Your task to perform on an android device: Clear the cart on costco.com. Add "apple airpods" to the cart on costco.com Image 0: 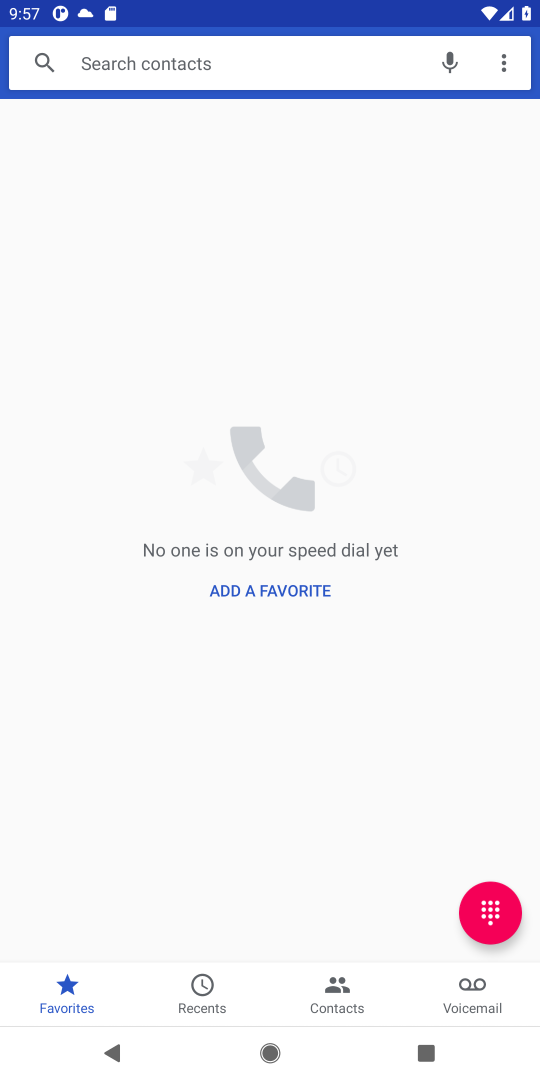
Step 0: press home button
Your task to perform on an android device: Clear the cart on costco.com. Add "apple airpods" to the cart on costco.com Image 1: 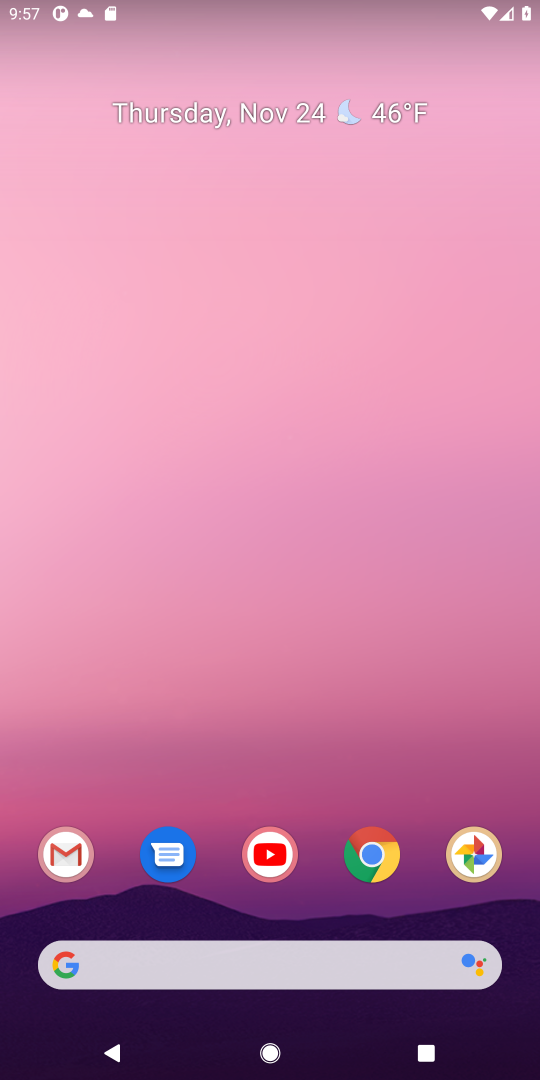
Step 1: click (378, 860)
Your task to perform on an android device: Clear the cart on costco.com. Add "apple airpods" to the cart on costco.com Image 2: 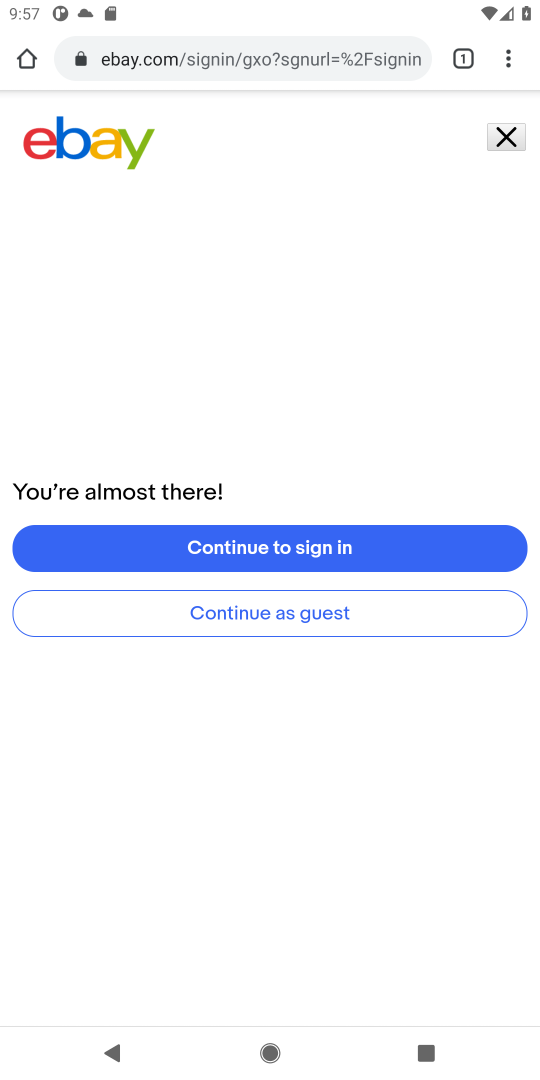
Step 2: click (196, 60)
Your task to perform on an android device: Clear the cart on costco.com. Add "apple airpods" to the cart on costco.com Image 3: 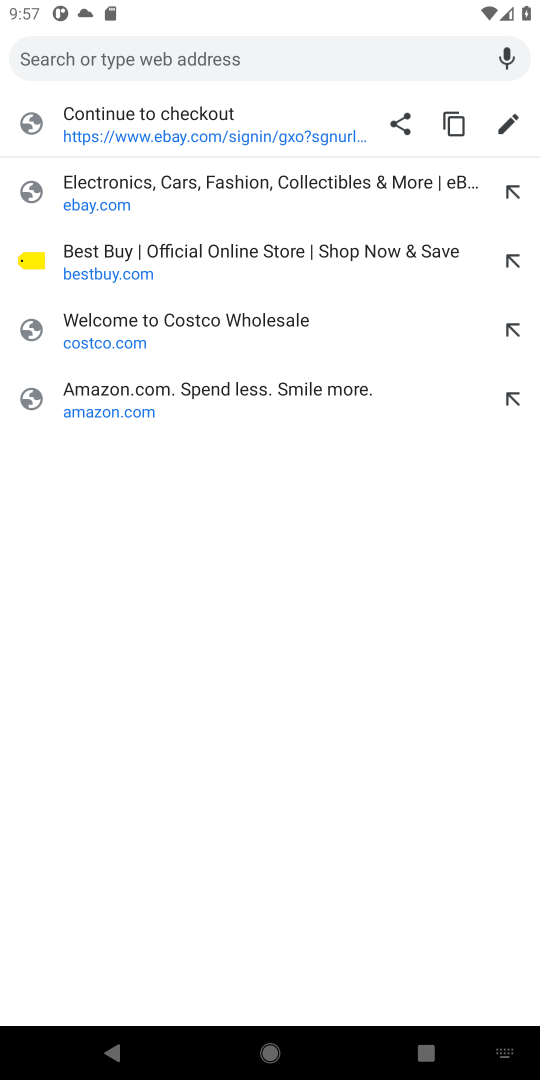
Step 3: click (89, 338)
Your task to perform on an android device: Clear the cart on costco.com. Add "apple airpods" to the cart on costco.com Image 4: 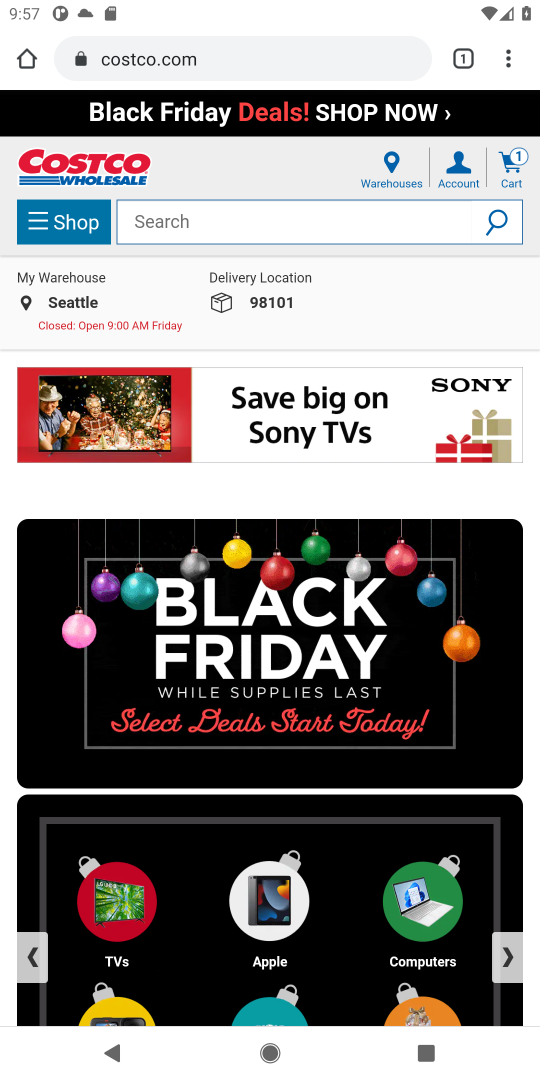
Step 4: click (510, 157)
Your task to perform on an android device: Clear the cart on costco.com. Add "apple airpods" to the cart on costco.com Image 5: 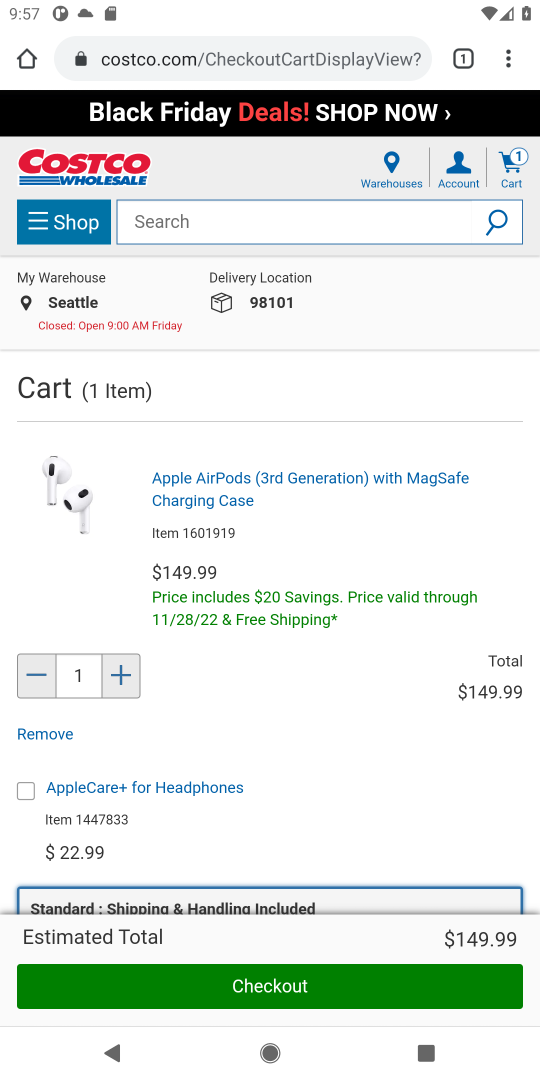
Step 5: drag from (266, 737) to (271, 416)
Your task to perform on an android device: Clear the cart on costco.com. Add "apple airpods" to the cart on costco.com Image 6: 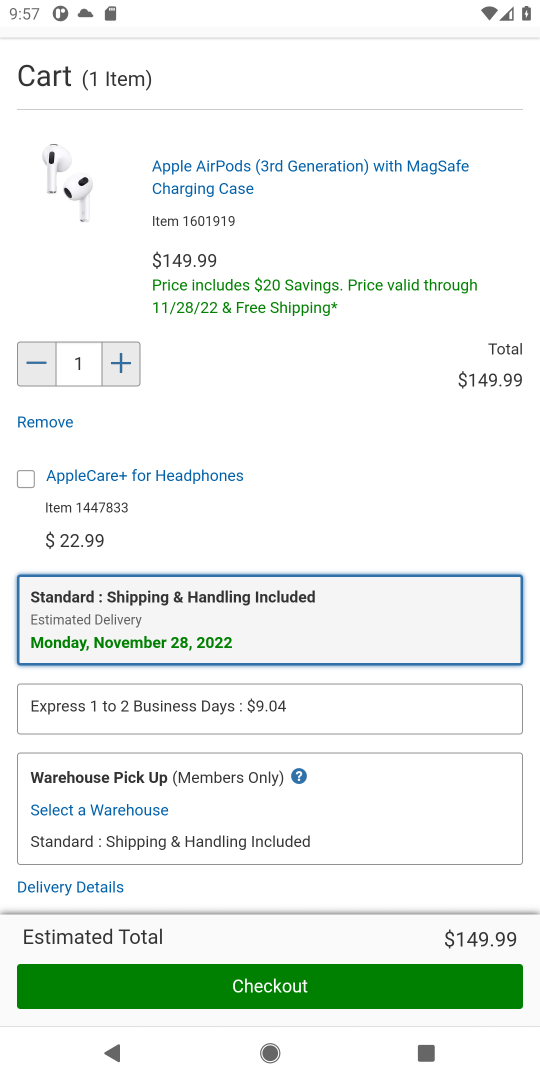
Step 6: drag from (214, 828) to (214, 572)
Your task to perform on an android device: Clear the cart on costco.com. Add "apple airpods" to the cart on costco.com Image 7: 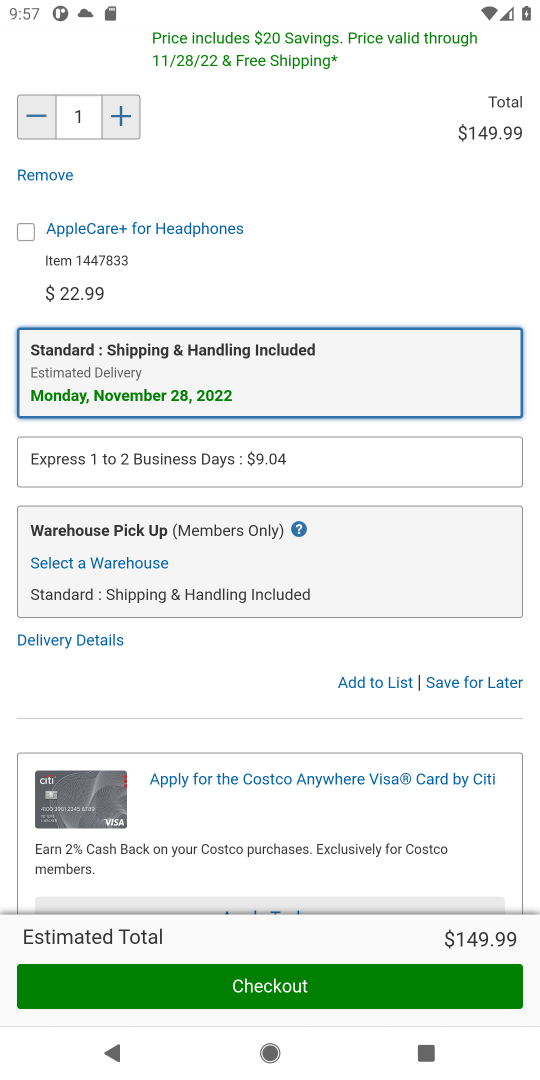
Step 7: click (484, 683)
Your task to perform on an android device: Clear the cart on costco.com. Add "apple airpods" to the cart on costco.com Image 8: 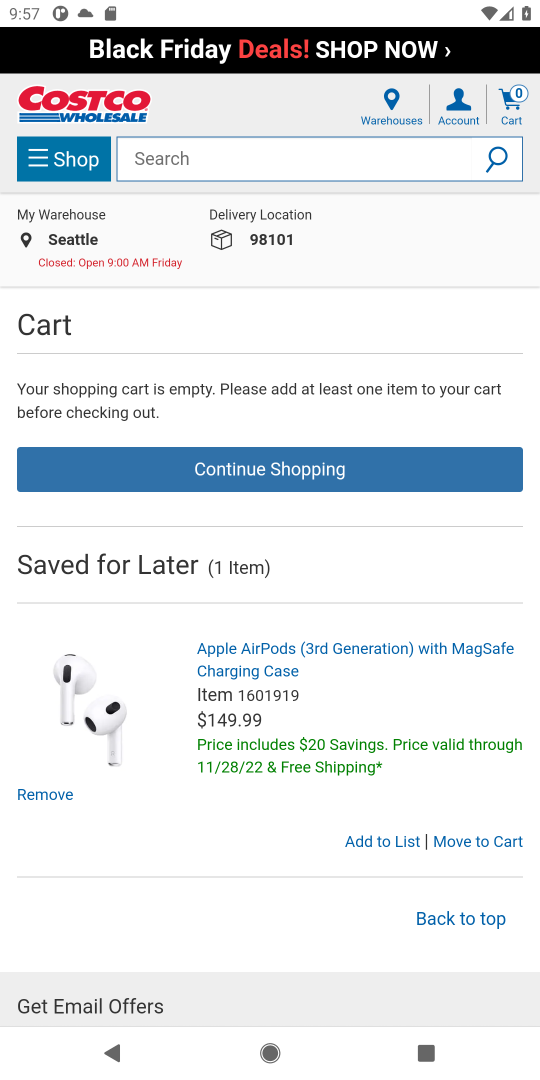
Step 8: click (197, 161)
Your task to perform on an android device: Clear the cart on costco.com. Add "apple airpods" to the cart on costco.com Image 9: 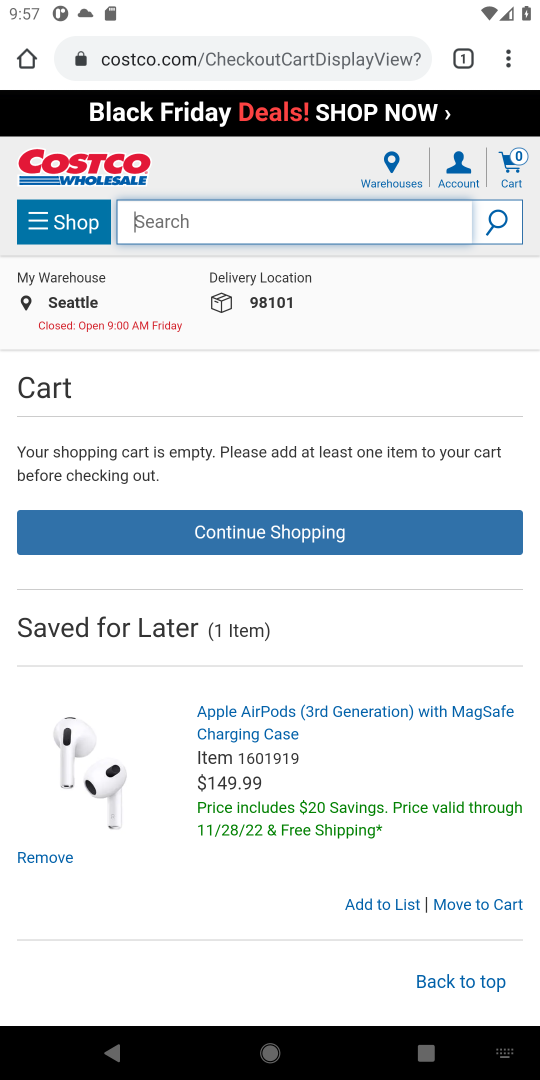
Step 9: type "apple airpods"
Your task to perform on an android device: Clear the cart on costco.com. Add "apple airpods" to the cart on costco.com Image 10: 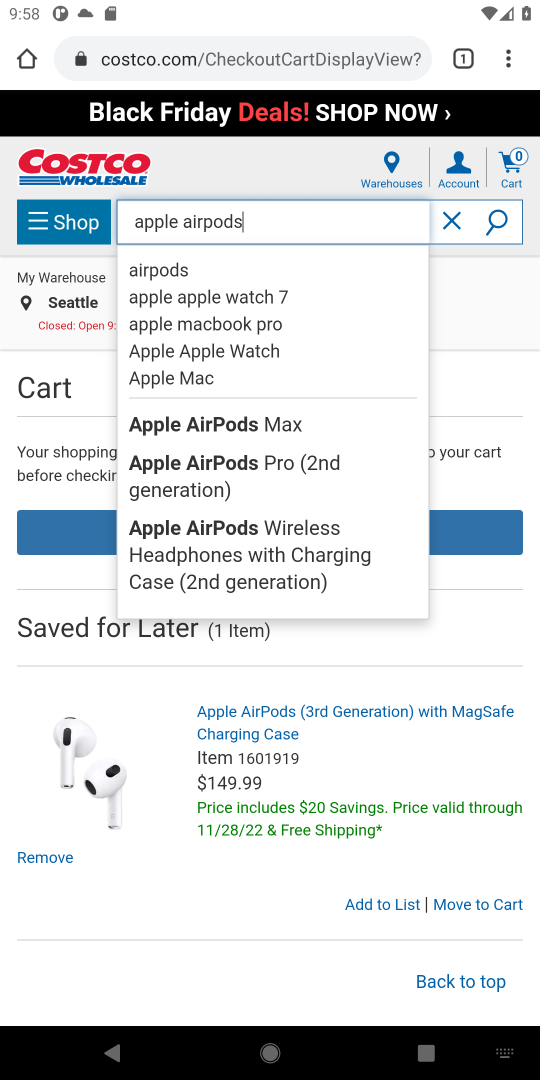
Step 10: click (499, 226)
Your task to perform on an android device: Clear the cart on costco.com. Add "apple airpods" to the cart on costco.com Image 11: 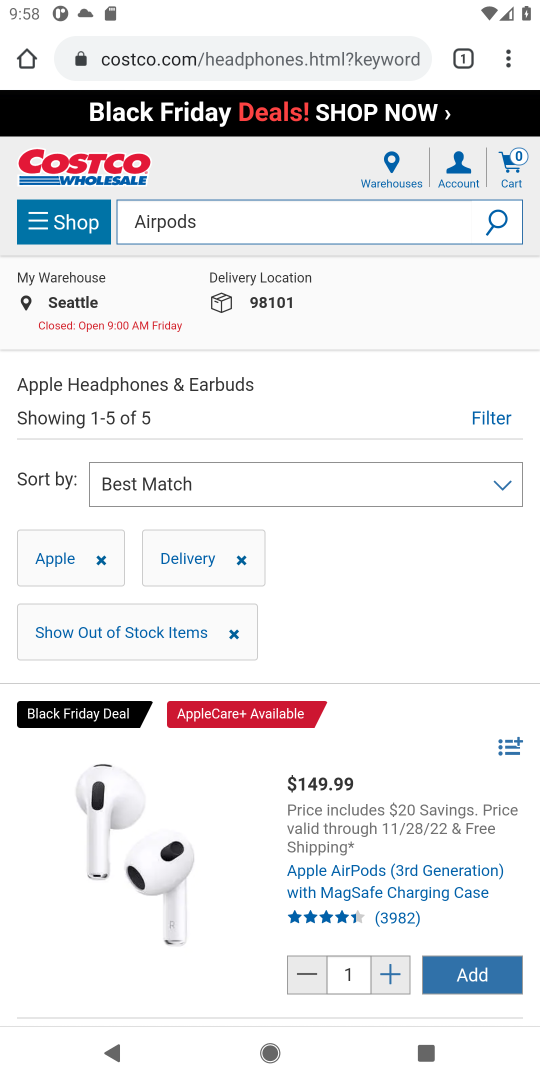
Step 11: drag from (143, 821) to (179, 512)
Your task to perform on an android device: Clear the cart on costco.com. Add "apple airpods" to the cart on costco.com Image 12: 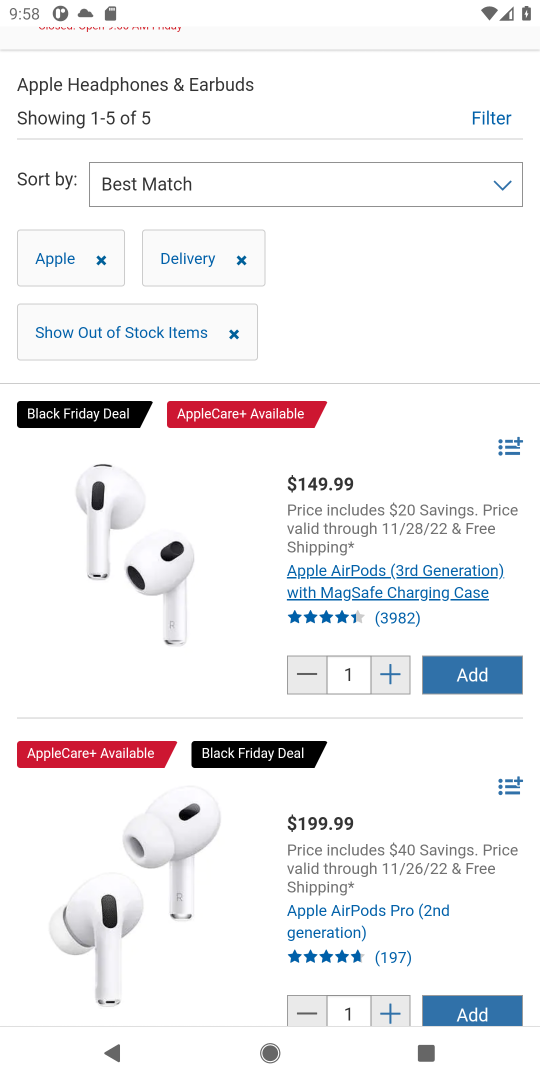
Step 12: click (469, 683)
Your task to perform on an android device: Clear the cart on costco.com. Add "apple airpods" to the cart on costco.com Image 13: 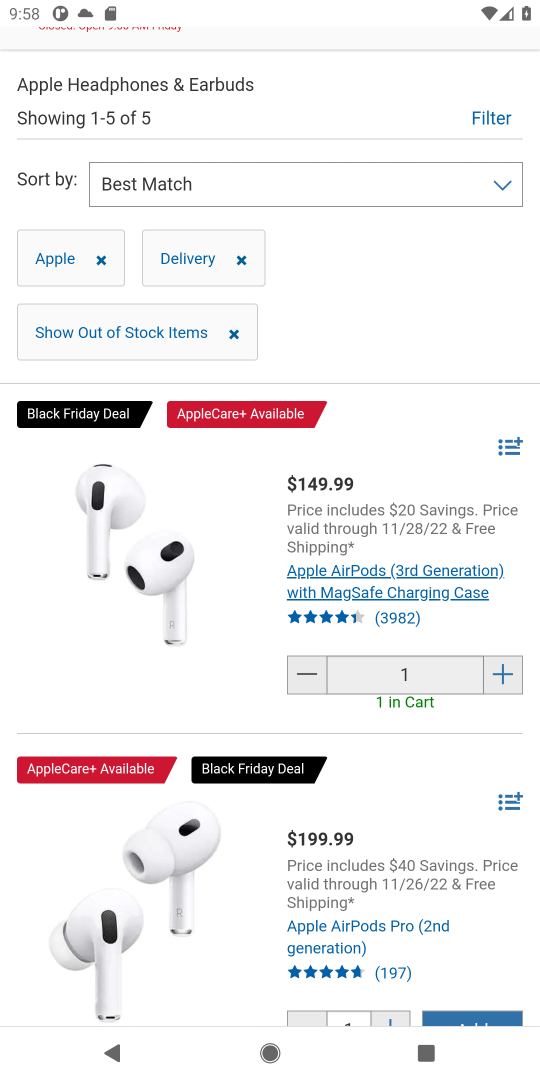
Step 13: task complete